Your task to perform on an android device: Is it going to rain tomorrow? Image 0: 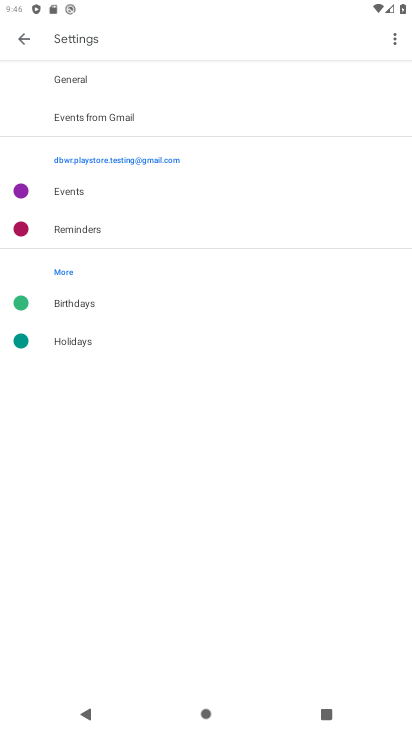
Step 0: press back button
Your task to perform on an android device: Is it going to rain tomorrow? Image 1: 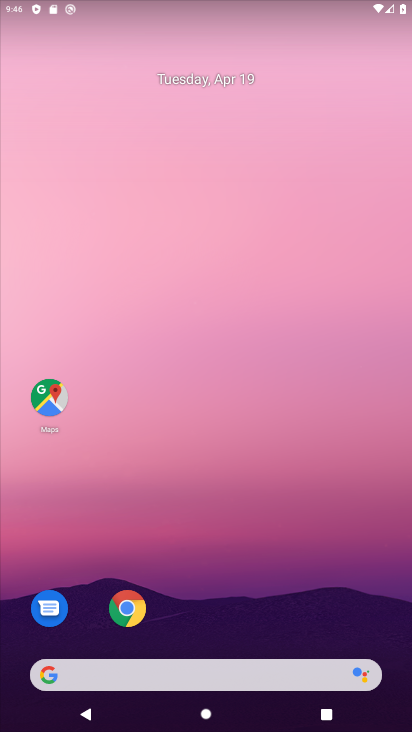
Step 1: drag from (327, 212) to (323, 178)
Your task to perform on an android device: Is it going to rain tomorrow? Image 2: 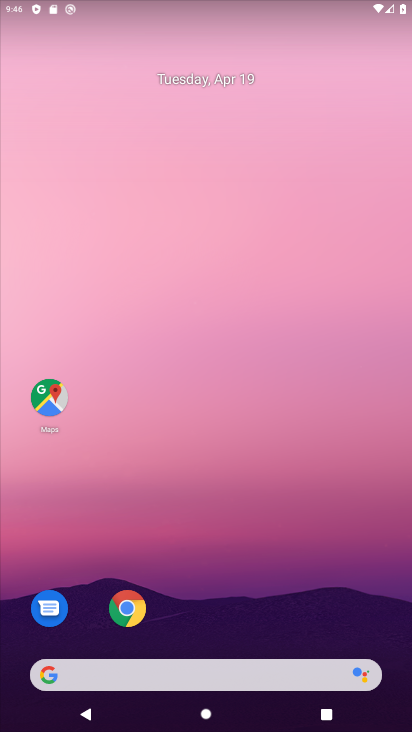
Step 2: drag from (3, 299) to (352, 257)
Your task to perform on an android device: Is it going to rain tomorrow? Image 3: 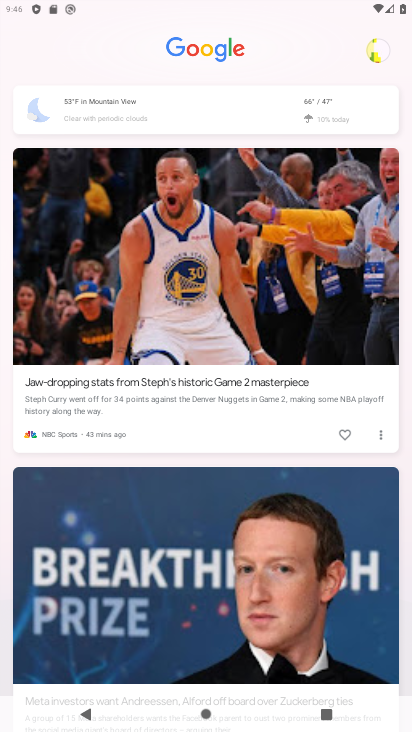
Step 3: click (203, 107)
Your task to perform on an android device: Is it going to rain tomorrow? Image 4: 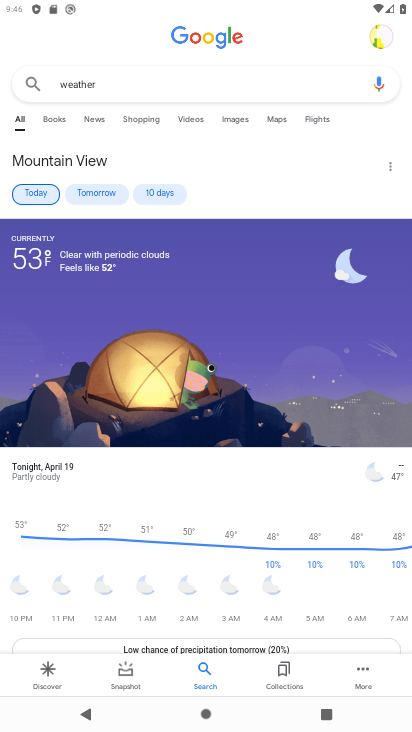
Step 4: task complete